Your task to perform on an android device: delete location history Image 0: 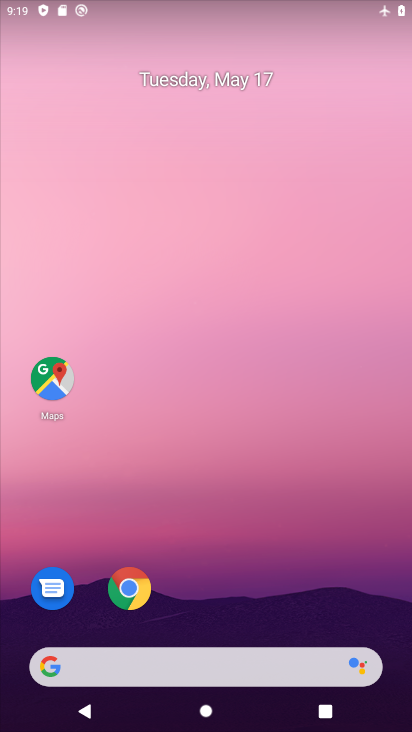
Step 0: drag from (231, 724) to (232, 236)
Your task to perform on an android device: delete location history Image 1: 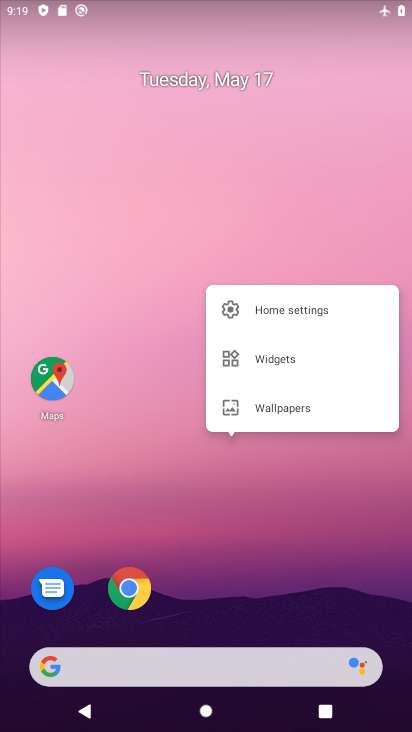
Step 1: click (156, 248)
Your task to perform on an android device: delete location history Image 2: 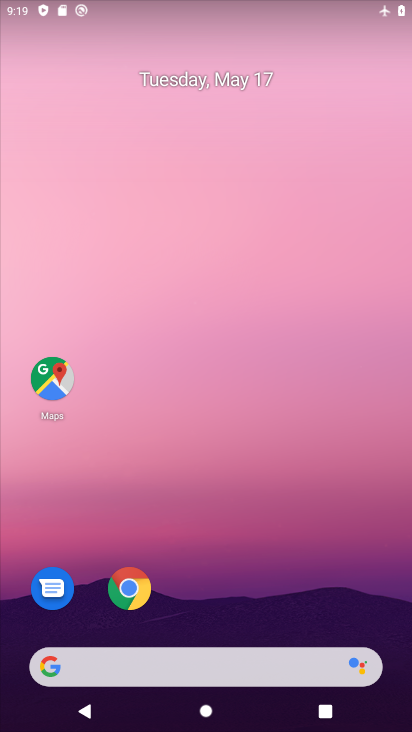
Step 2: drag from (232, 726) to (243, 143)
Your task to perform on an android device: delete location history Image 3: 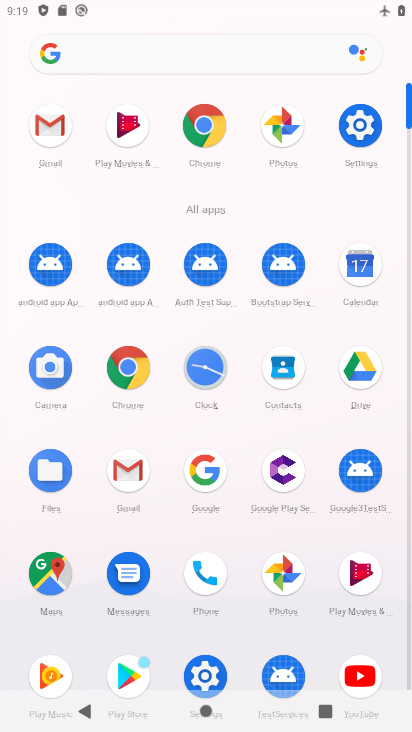
Step 3: click (51, 571)
Your task to perform on an android device: delete location history Image 4: 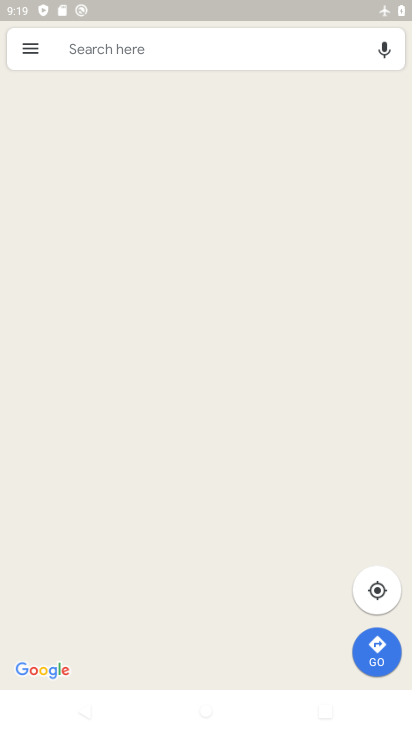
Step 4: click (25, 49)
Your task to perform on an android device: delete location history Image 5: 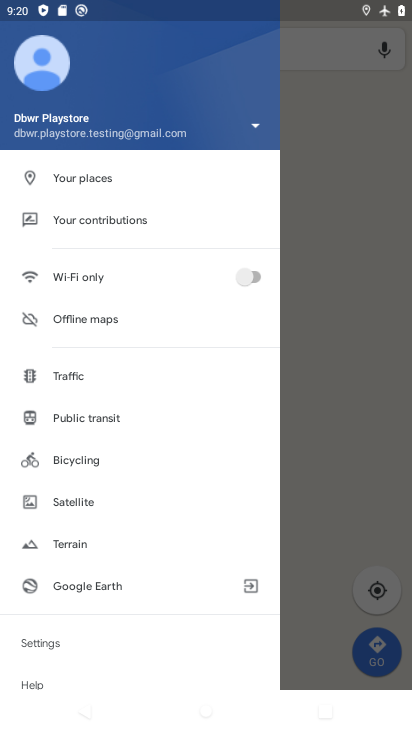
Step 5: click (40, 643)
Your task to perform on an android device: delete location history Image 6: 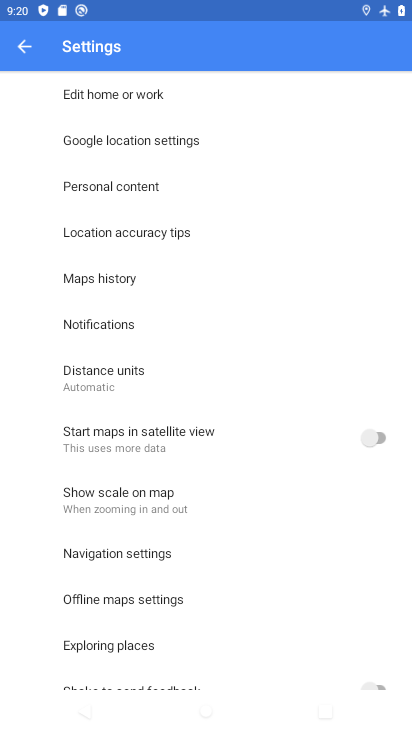
Step 6: click (21, 46)
Your task to perform on an android device: delete location history Image 7: 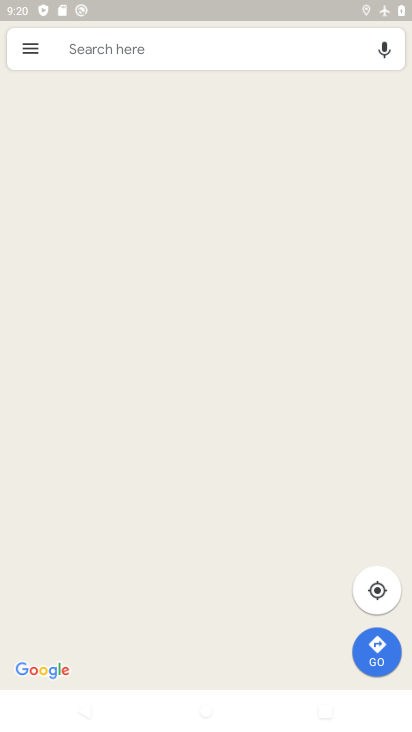
Step 7: click (36, 49)
Your task to perform on an android device: delete location history Image 8: 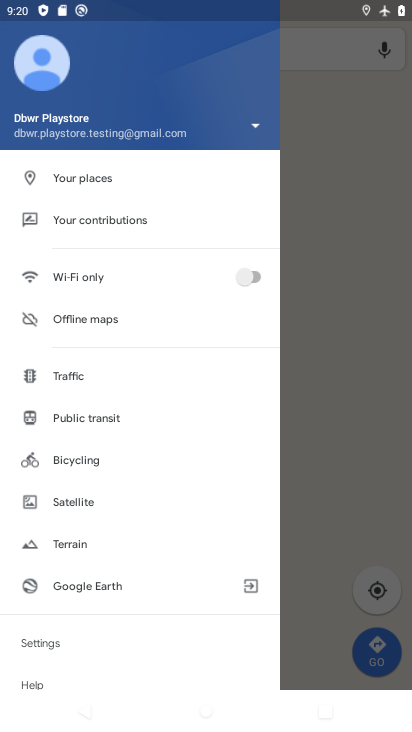
Step 8: task complete